Your task to perform on an android device: delete the emails in spam in the gmail app Image 0: 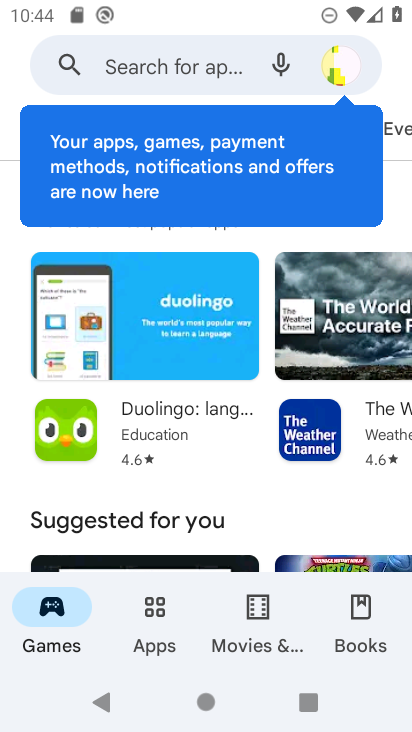
Step 0: press home button
Your task to perform on an android device: delete the emails in spam in the gmail app Image 1: 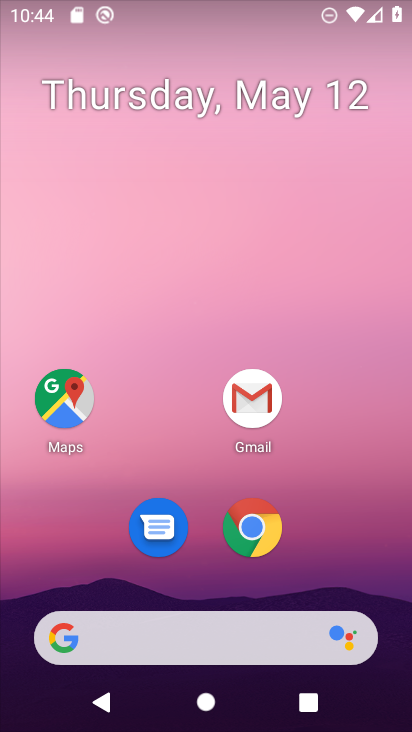
Step 1: click (262, 425)
Your task to perform on an android device: delete the emails in spam in the gmail app Image 2: 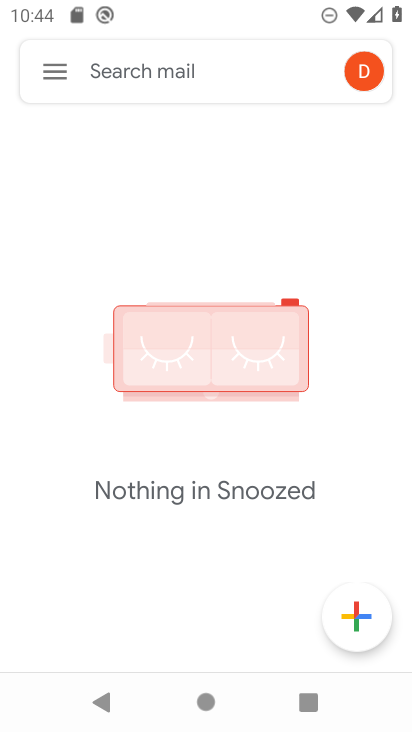
Step 2: click (43, 59)
Your task to perform on an android device: delete the emails in spam in the gmail app Image 3: 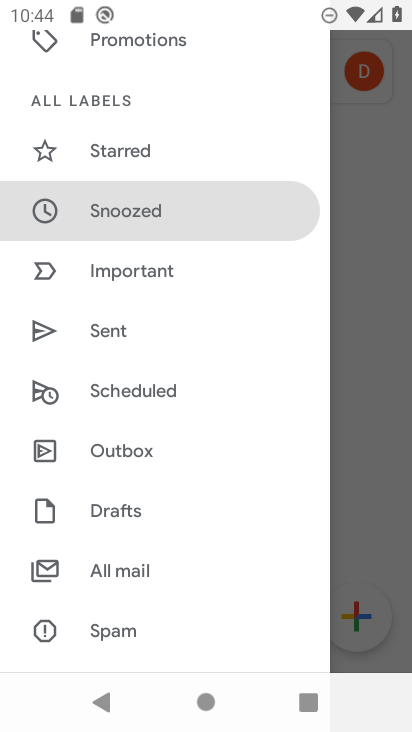
Step 3: drag from (149, 600) to (135, 294)
Your task to perform on an android device: delete the emails in spam in the gmail app Image 4: 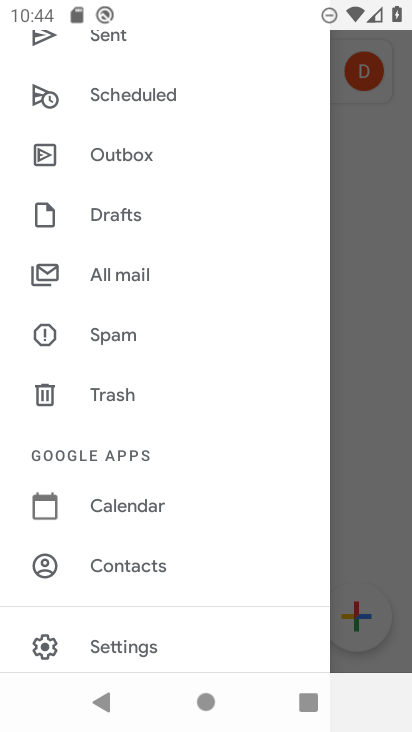
Step 4: click (113, 346)
Your task to perform on an android device: delete the emails in spam in the gmail app Image 5: 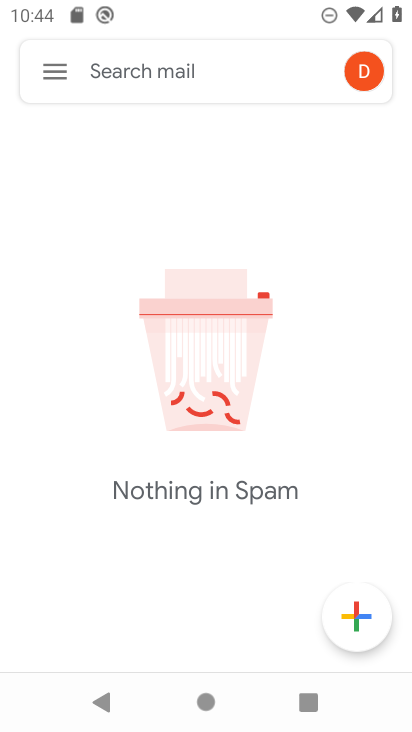
Step 5: task complete